Your task to perform on an android device: Open calendar and show me the second week of next month Image 0: 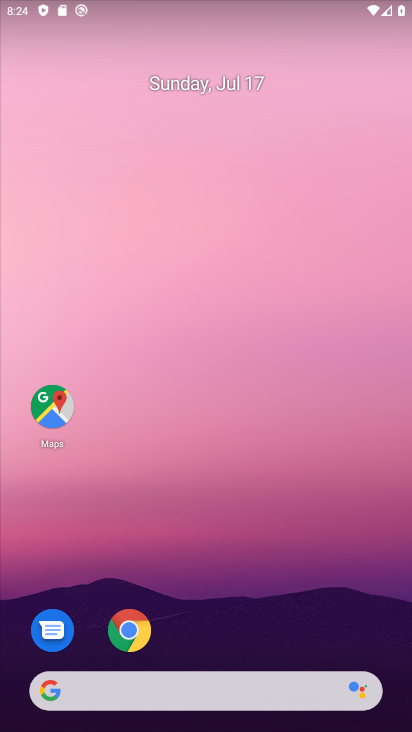
Step 0: drag from (237, 626) to (188, 245)
Your task to perform on an android device: Open calendar and show me the second week of next month Image 1: 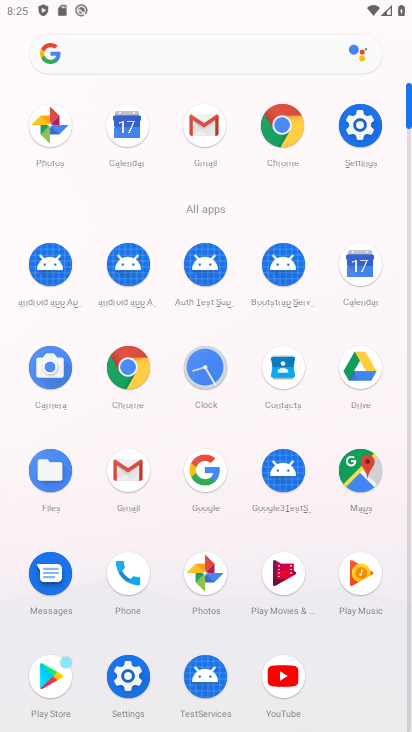
Step 1: click (114, 126)
Your task to perform on an android device: Open calendar and show me the second week of next month Image 2: 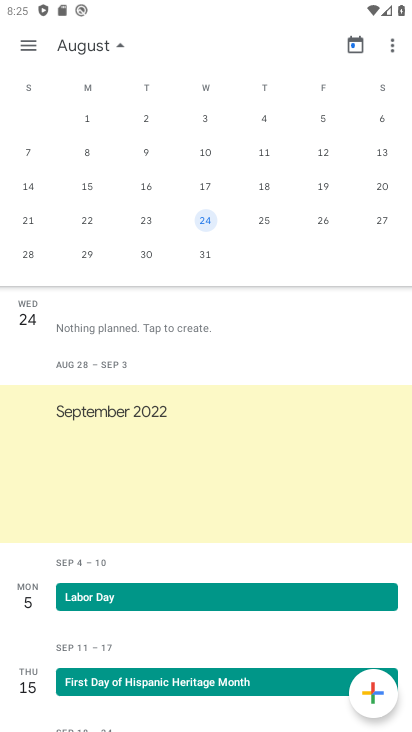
Step 2: task complete